Your task to perform on an android device: add a contact in the contacts app Image 0: 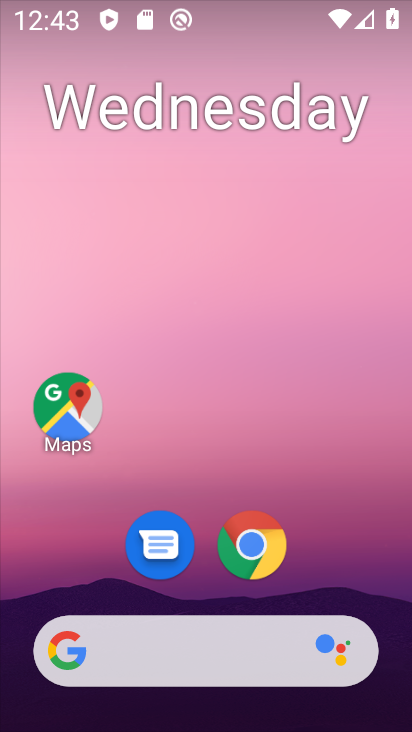
Step 0: drag from (184, 575) to (235, 301)
Your task to perform on an android device: add a contact in the contacts app Image 1: 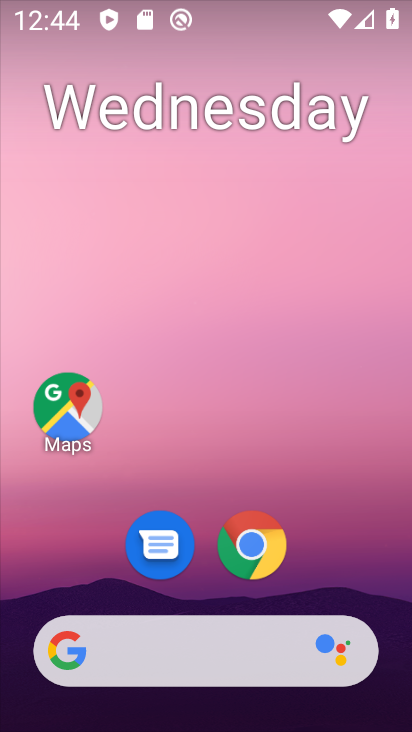
Step 1: drag from (206, 590) to (272, 265)
Your task to perform on an android device: add a contact in the contacts app Image 2: 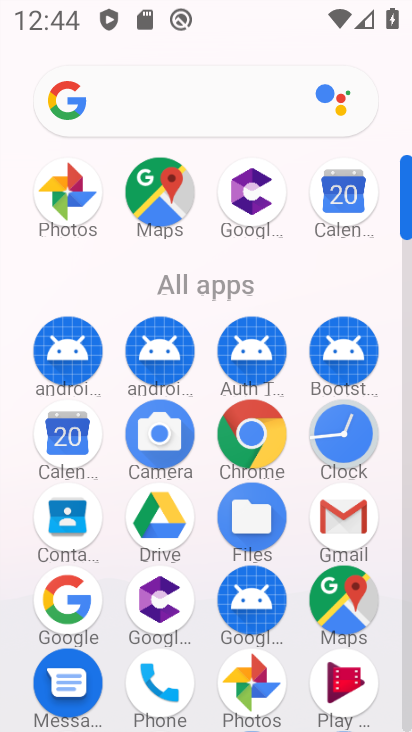
Step 2: click (61, 520)
Your task to perform on an android device: add a contact in the contacts app Image 3: 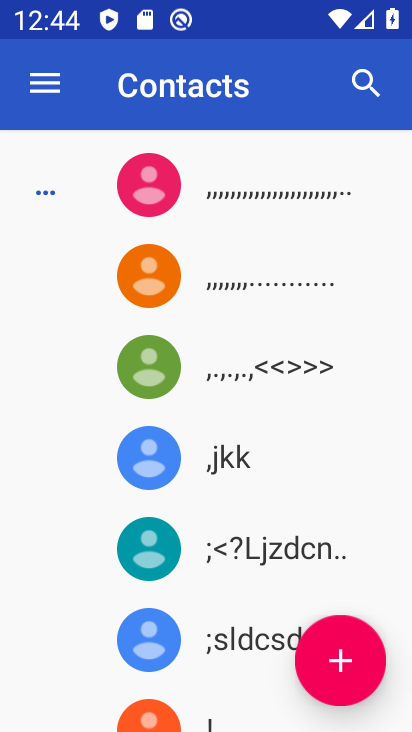
Step 3: click (333, 666)
Your task to perform on an android device: add a contact in the contacts app Image 4: 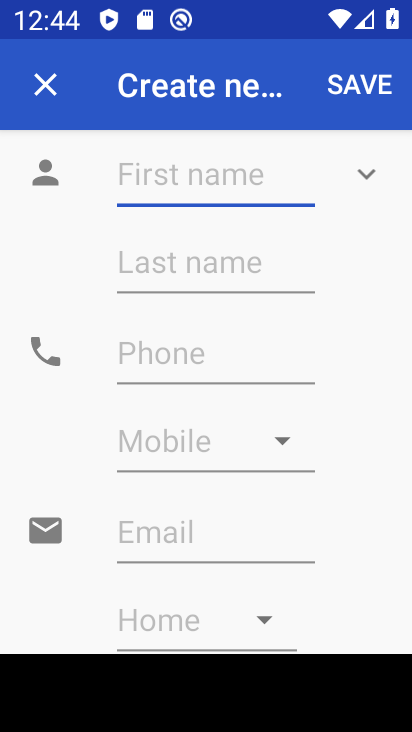
Step 4: type "pagal"
Your task to perform on an android device: add a contact in the contacts app Image 5: 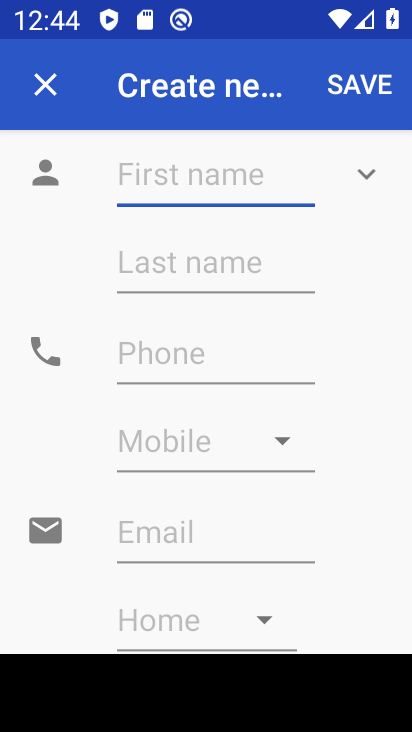
Step 5: click (143, 265)
Your task to perform on an android device: add a contact in the contacts app Image 6: 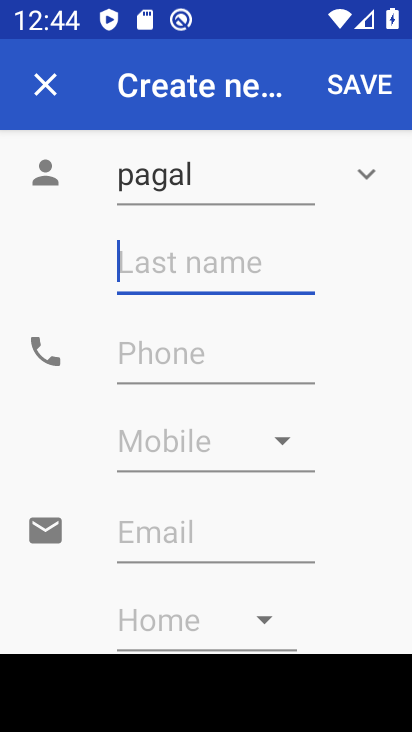
Step 6: click (156, 171)
Your task to perform on an android device: add a contact in the contacts app Image 7: 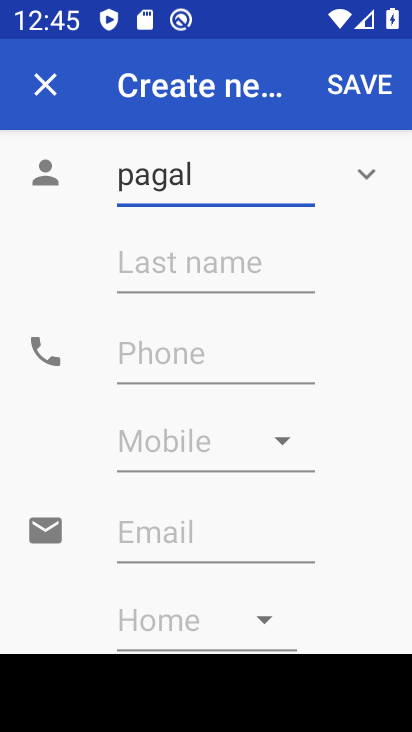
Step 7: type "payal"
Your task to perform on an android device: add a contact in the contacts app Image 8: 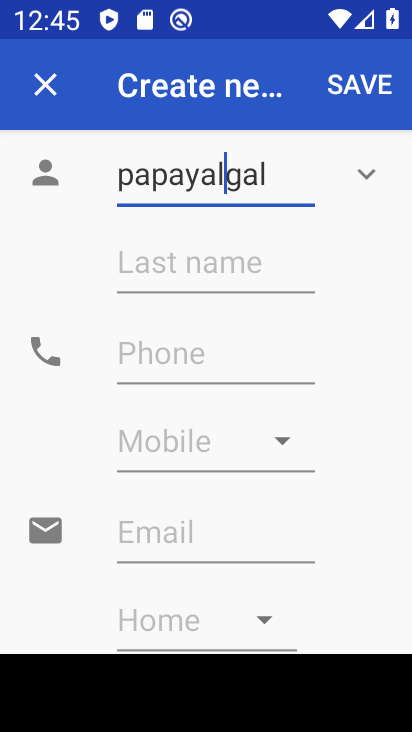
Step 8: click (184, 270)
Your task to perform on an android device: add a contact in the contacts app Image 9: 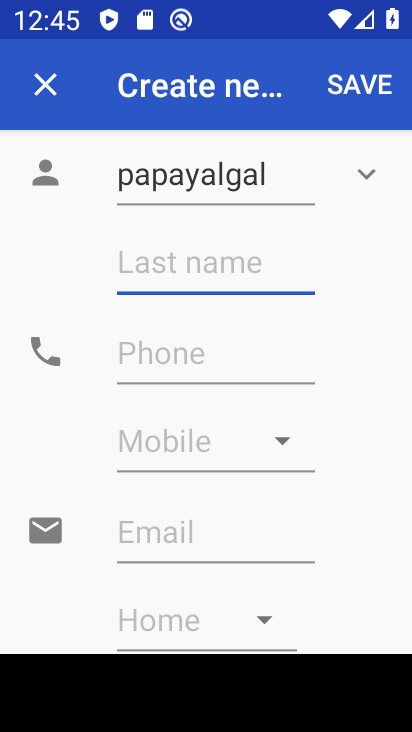
Step 9: type "payal"
Your task to perform on an android device: add a contact in the contacts app Image 10: 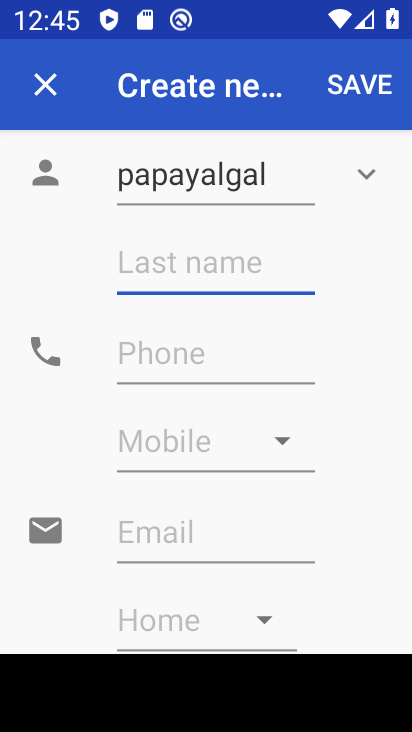
Step 10: click (189, 366)
Your task to perform on an android device: add a contact in the contacts app Image 11: 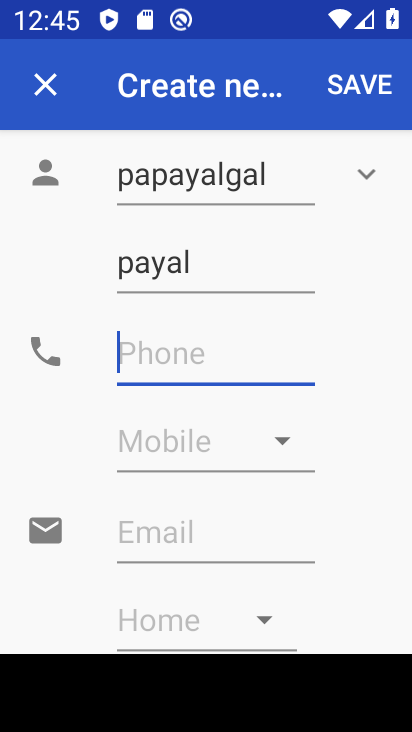
Step 11: type "45657"
Your task to perform on an android device: add a contact in the contacts app Image 12: 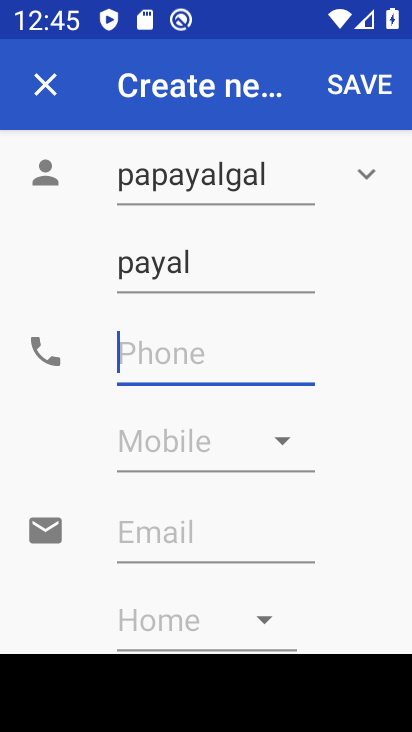
Step 12: click (199, 439)
Your task to perform on an android device: add a contact in the contacts app Image 13: 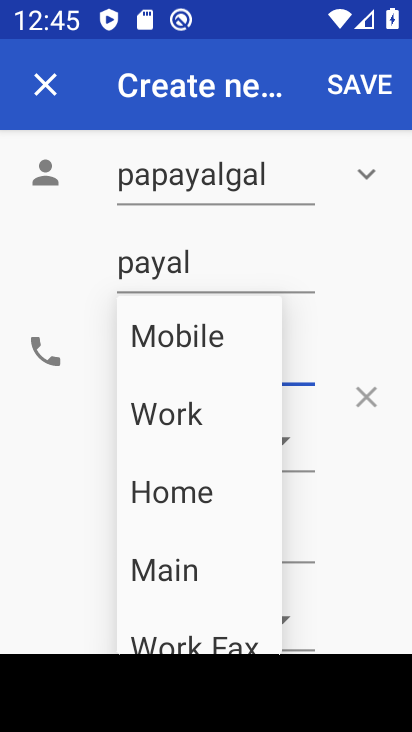
Step 13: click (297, 538)
Your task to perform on an android device: add a contact in the contacts app Image 14: 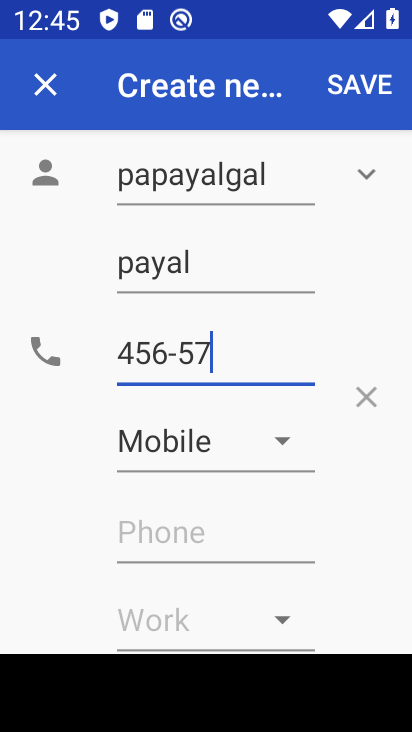
Step 14: click (360, 97)
Your task to perform on an android device: add a contact in the contacts app Image 15: 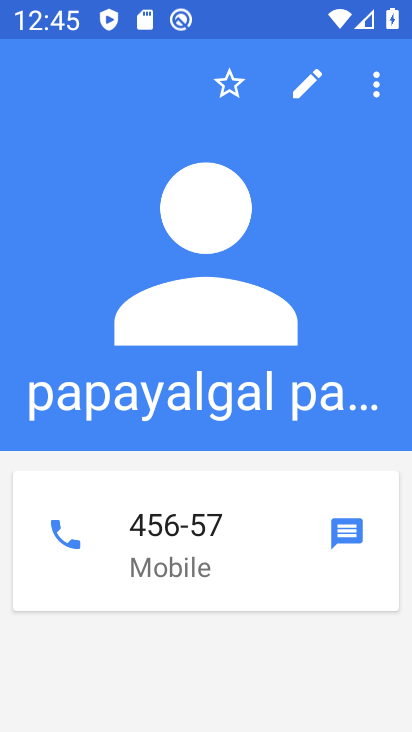
Step 15: task complete